Your task to perform on an android device: Open the calendar app, open the side menu, and click the "Day" option Image 0: 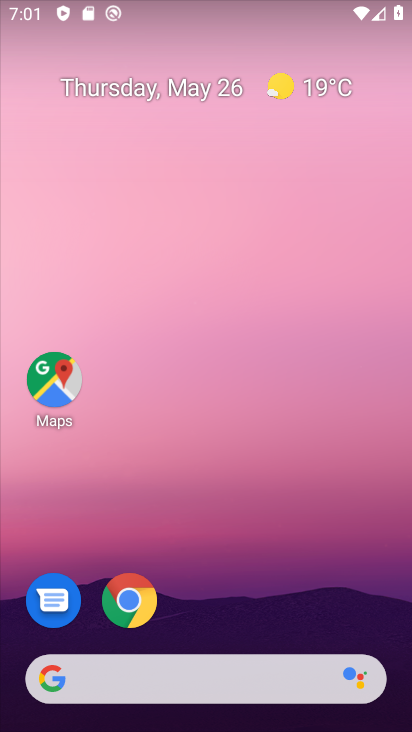
Step 0: drag from (289, 705) to (216, 135)
Your task to perform on an android device: Open the calendar app, open the side menu, and click the "Day" option Image 1: 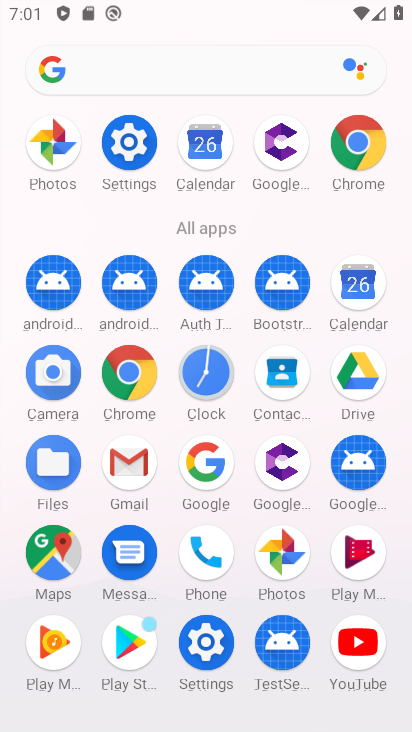
Step 1: click (357, 306)
Your task to perform on an android device: Open the calendar app, open the side menu, and click the "Day" option Image 2: 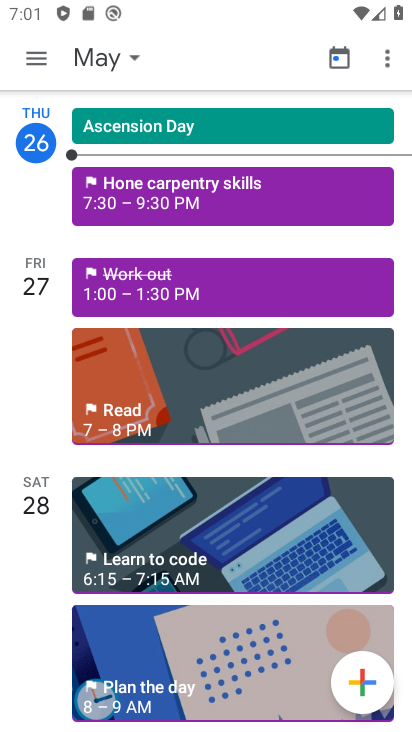
Step 2: click (44, 55)
Your task to perform on an android device: Open the calendar app, open the side menu, and click the "Day" option Image 3: 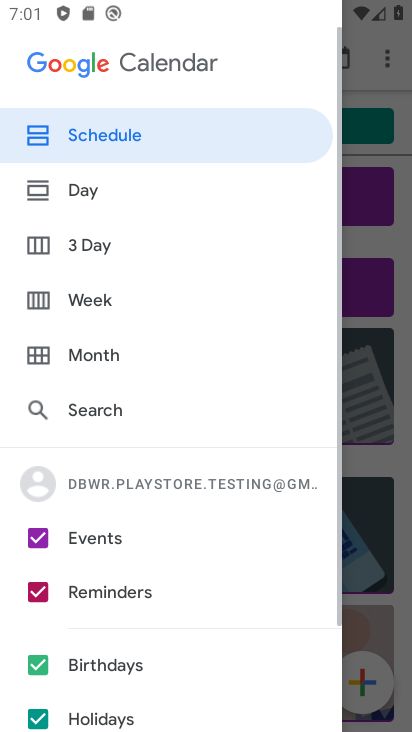
Step 3: click (121, 196)
Your task to perform on an android device: Open the calendar app, open the side menu, and click the "Day" option Image 4: 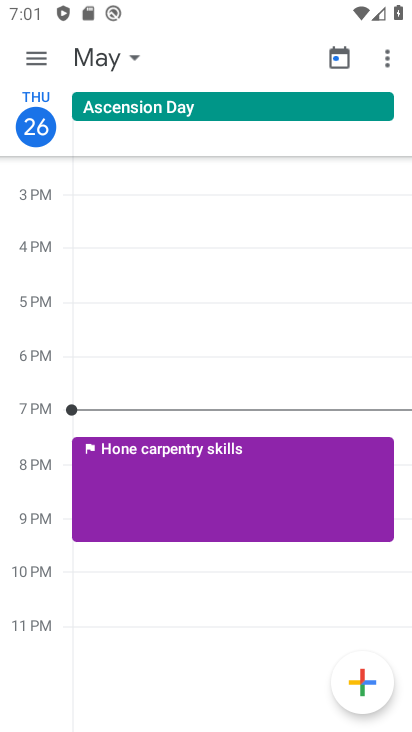
Step 4: task complete